Your task to perform on an android device: change the clock display to show seconds Image 0: 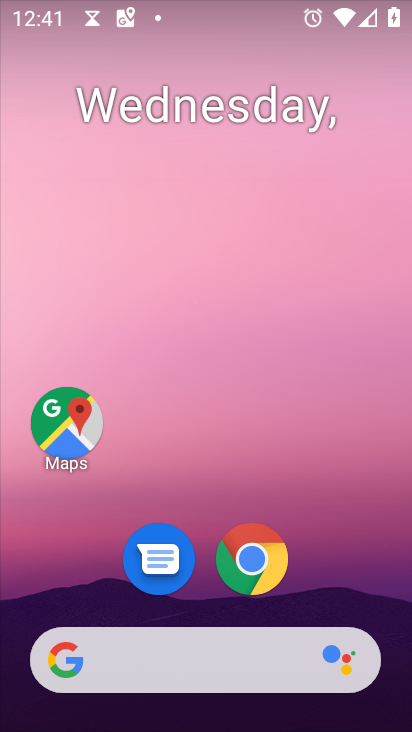
Step 0: drag from (360, 592) to (373, 3)
Your task to perform on an android device: change the clock display to show seconds Image 1: 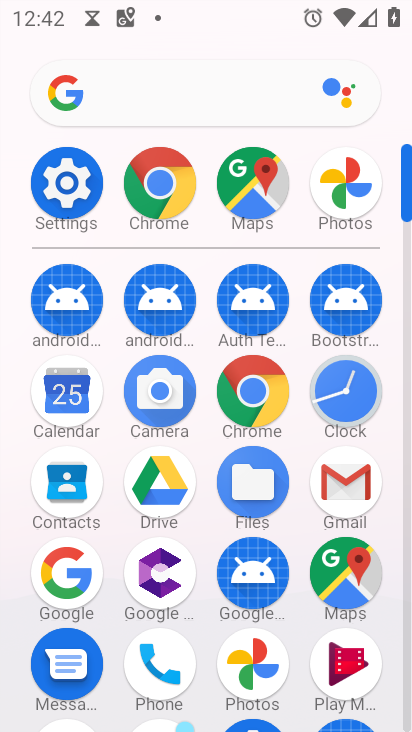
Step 1: click (331, 399)
Your task to perform on an android device: change the clock display to show seconds Image 2: 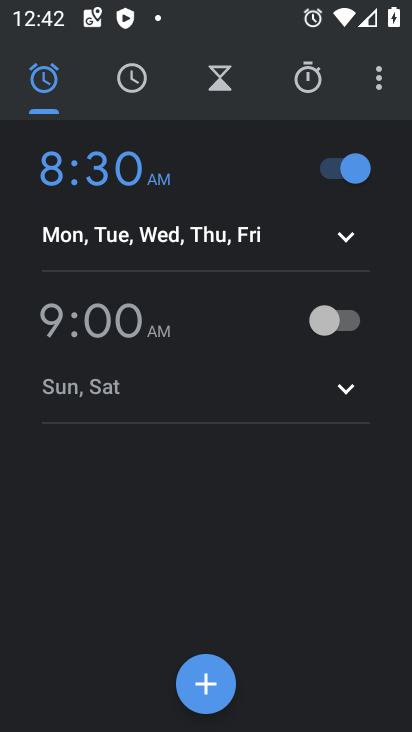
Step 2: click (374, 67)
Your task to perform on an android device: change the clock display to show seconds Image 3: 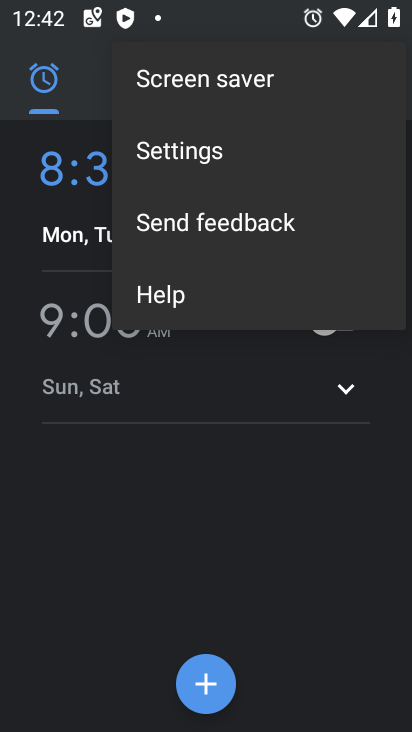
Step 3: click (134, 155)
Your task to perform on an android device: change the clock display to show seconds Image 4: 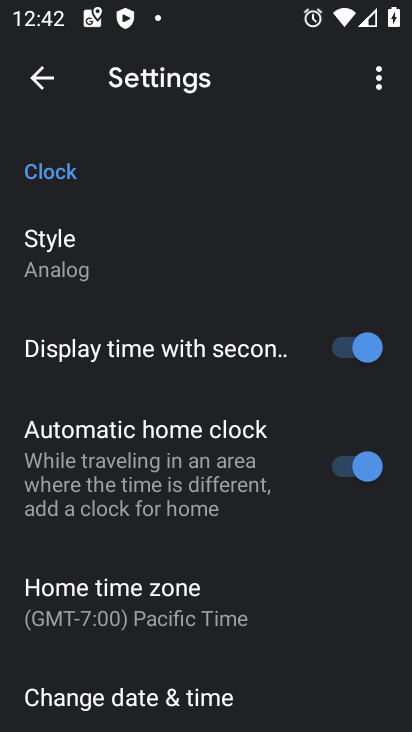
Step 4: task complete